Your task to perform on an android device: Do I have any events tomorrow? Image 0: 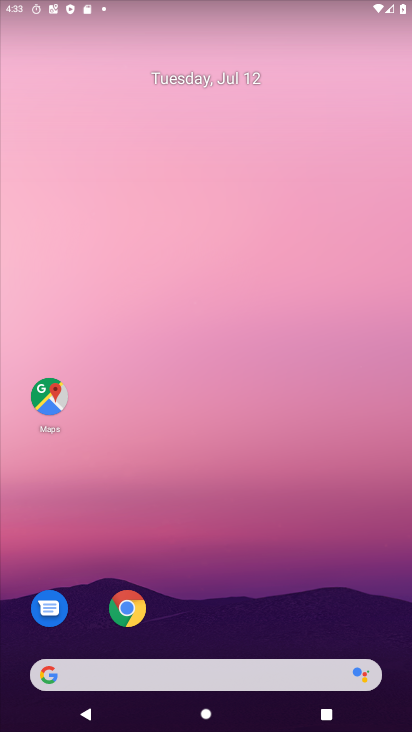
Step 0: drag from (227, 633) to (202, 53)
Your task to perform on an android device: Do I have any events tomorrow? Image 1: 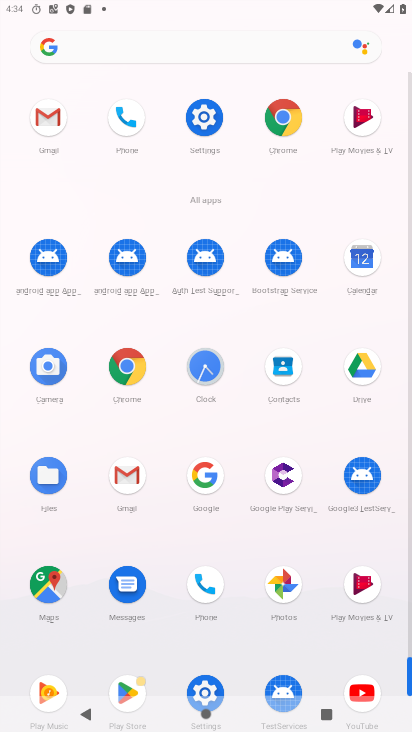
Step 1: click (357, 269)
Your task to perform on an android device: Do I have any events tomorrow? Image 2: 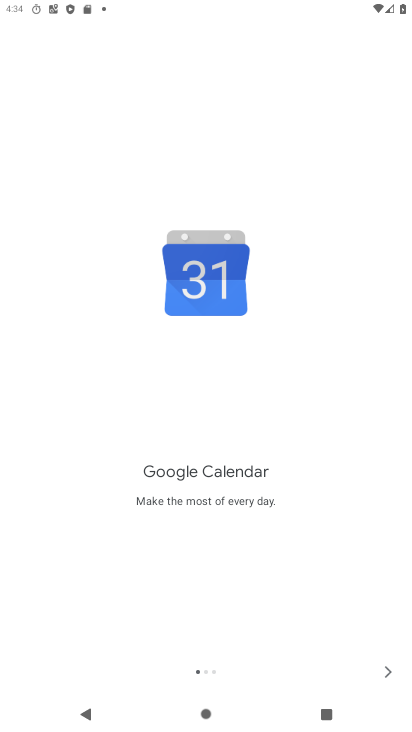
Step 2: click (382, 671)
Your task to perform on an android device: Do I have any events tomorrow? Image 3: 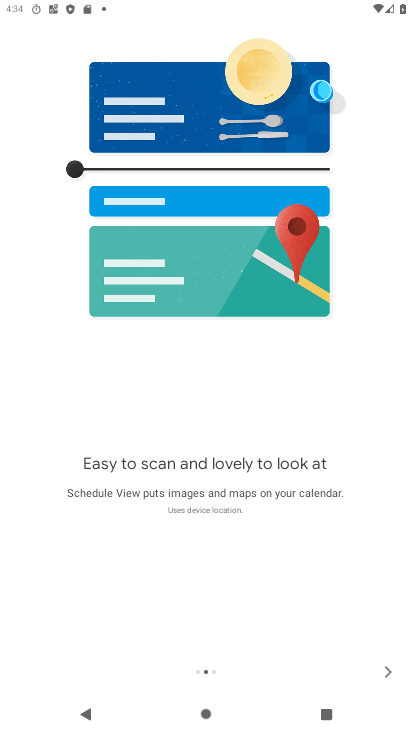
Step 3: click (382, 671)
Your task to perform on an android device: Do I have any events tomorrow? Image 4: 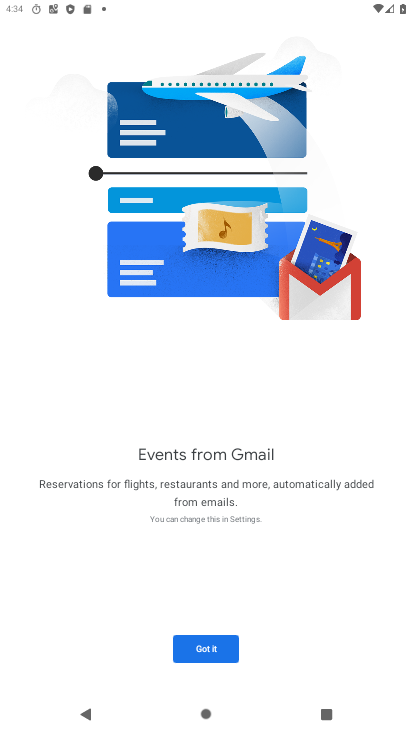
Step 4: click (213, 651)
Your task to perform on an android device: Do I have any events tomorrow? Image 5: 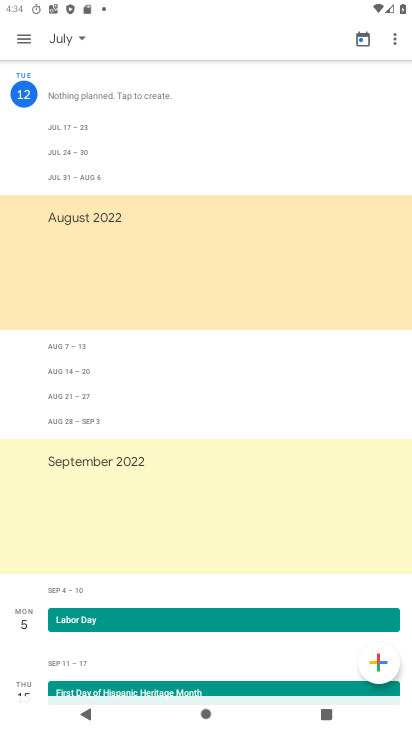
Step 5: click (24, 46)
Your task to perform on an android device: Do I have any events tomorrow? Image 6: 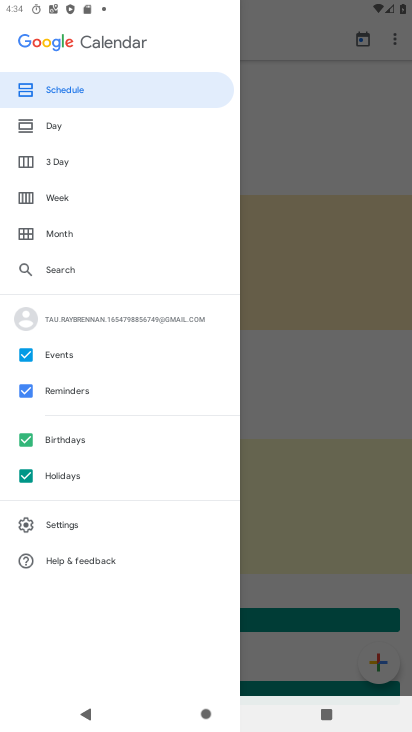
Step 6: click (26, 479)
Your task to perform on an android device: Do I have any events tomorrow? Image 7: 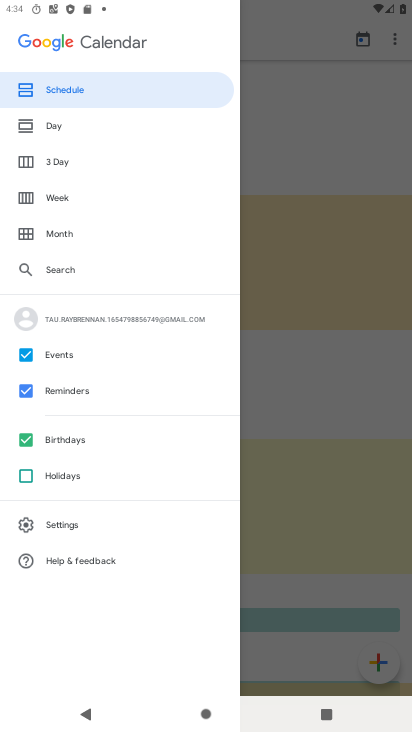
Step 7: click (22, 442)
Your task to perform on an android device: Do I have any events tomorrow? Image 8: 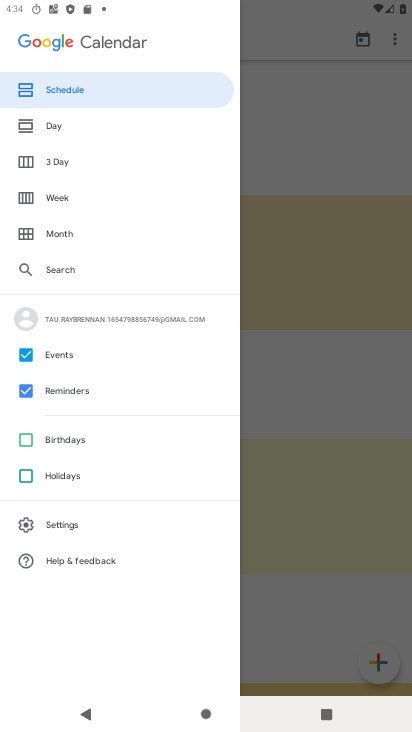
Step 8: click (24, 394)
Your task to perform on an android device: Do I have any events tomorrow? Image 9: 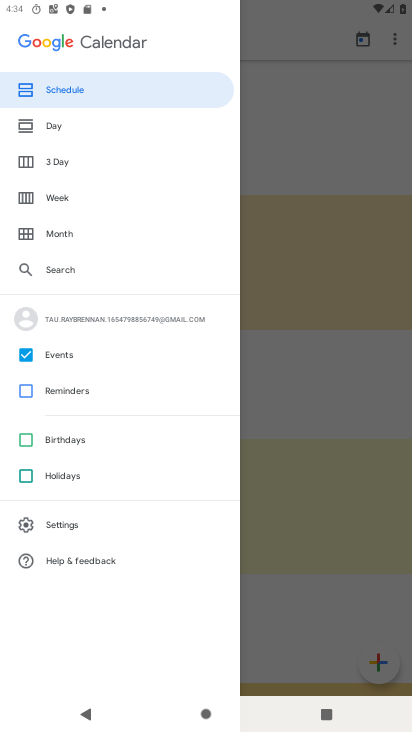
Step 9: click (69, 118)
Your task to perform on an android device: Do I have any events tomorrow? Image 10: 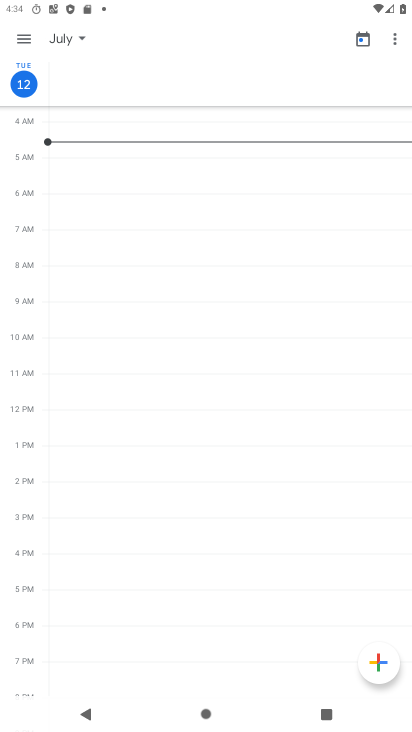
Step 10: task complete